Your task to perform on an android device: change notifications settings Image 0: 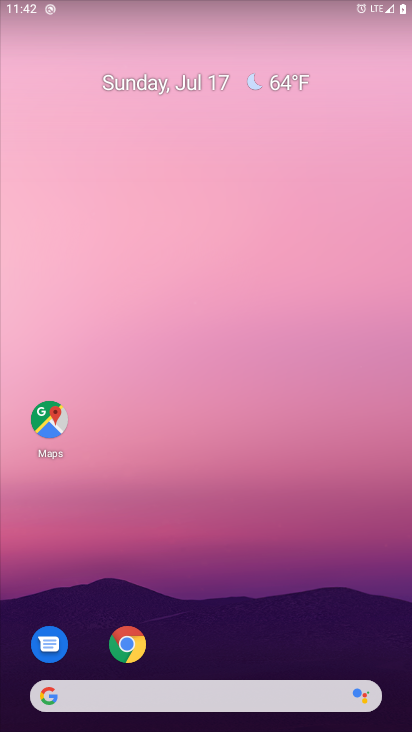
Step 0: press home button
Your task to perform on an android device: change notifications settings Image 1: 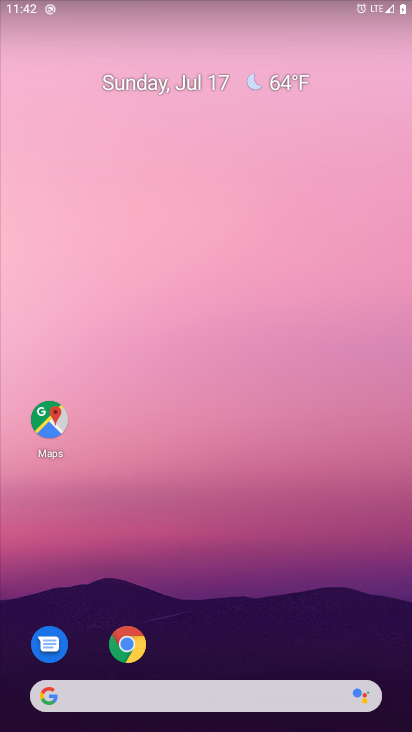
Step 1: drag from (198, 60) to (201, 24)
Your task to perform on an android device: change notifications settings Image 2: 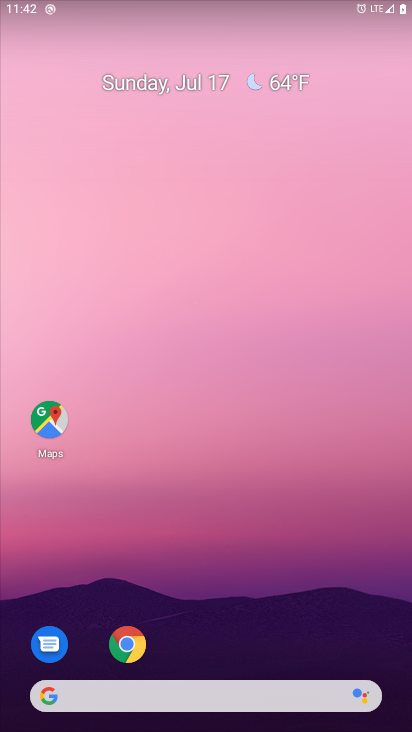
Step 2: drag from (243, 616) to (252, 3)
Your task to perform on an android device: change notifications settings Image 3: 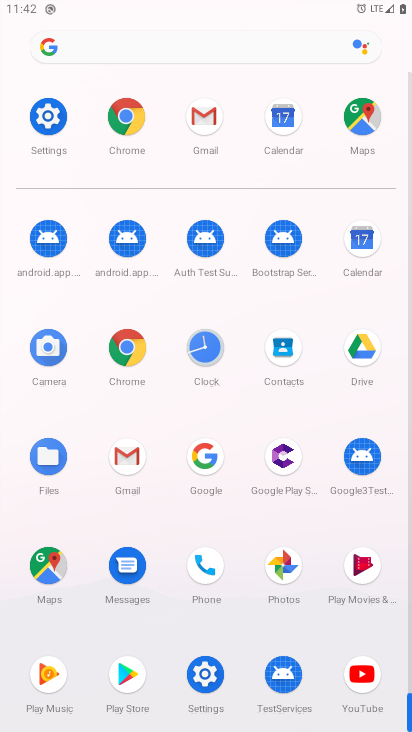
Step 3: click (40, 127)
Your task to perform on an android device: change notifications settings Image 4: 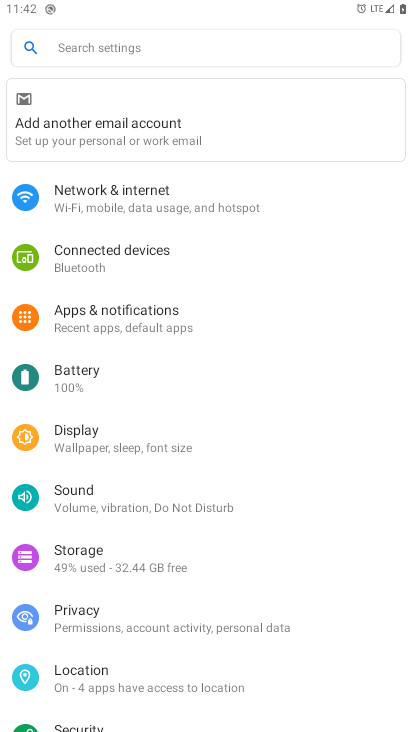
Step 4: click (104, 311)
Your task to perform on an android device: change notifications settings Image 5: 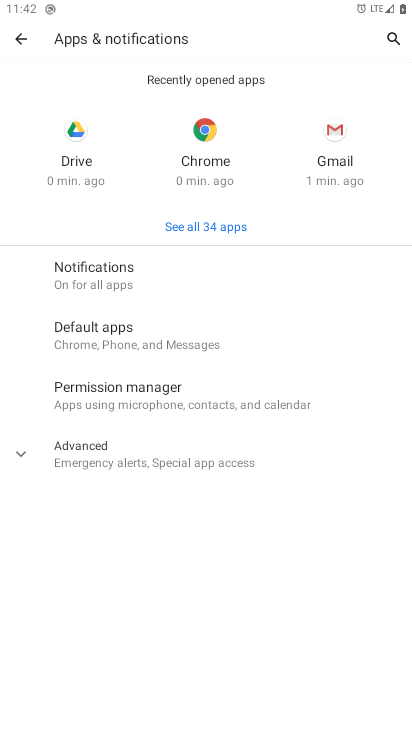
Step 5: click (96, 283)
Your task to perform on an android device: change notifications settings Image 6: 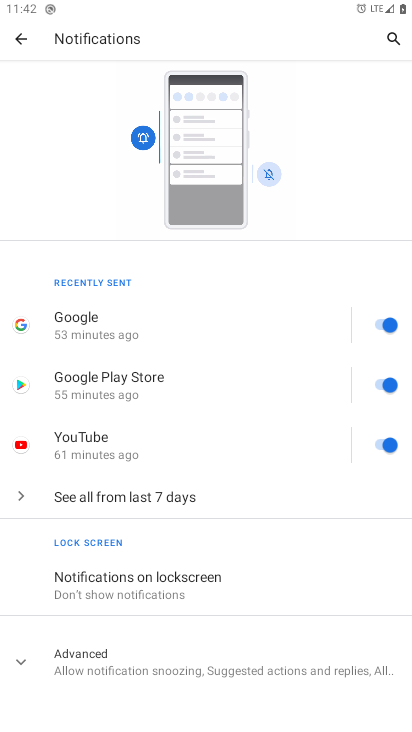
Step 6: drag from (279, 535) to (297, 236)
Your task to perform on an android device: change notifications settings Image 7: 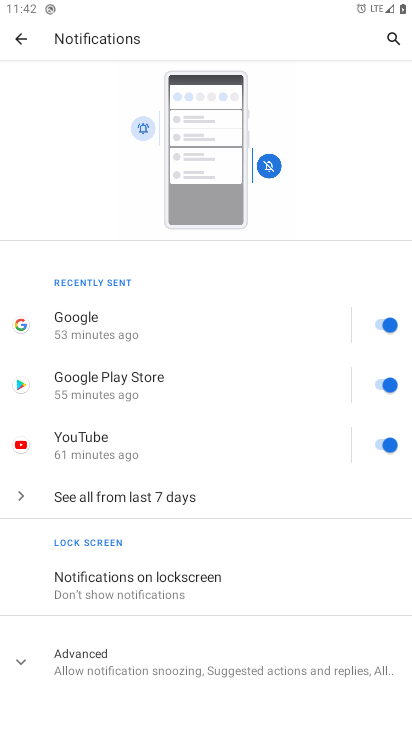
Step 7: click (139, 130)
Your task to perform on an android device: change notifications settings Image 8: 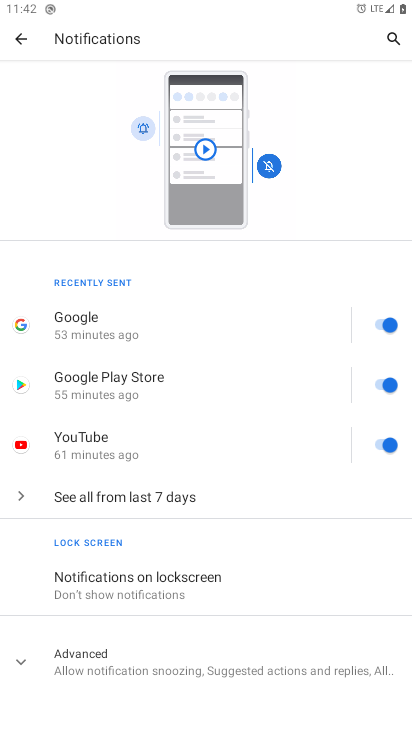
Step 8: click (140, 127)
Your task to perform on an android device: change notifications settings Image 9: 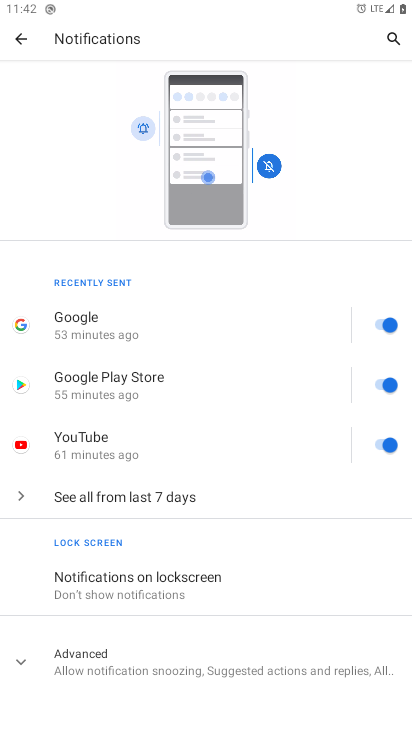
Step 9: click (262, 162)
Your task to perform on an android device: change notifications settings Image 10: 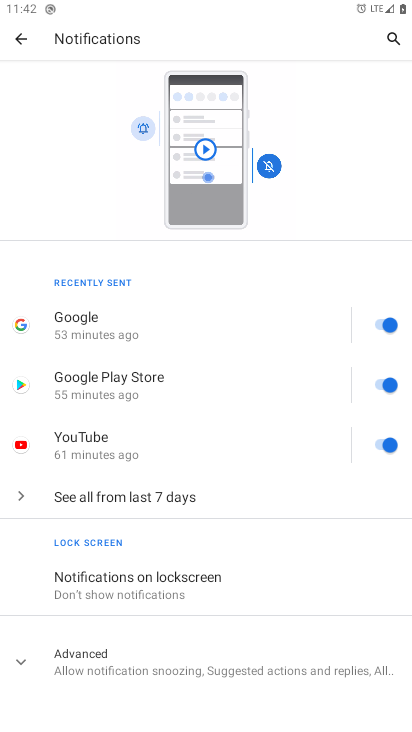
Step 10: drag from (253, 538) to (283, 143)
Your task to perform on an android device: change notifications settings Image 11: 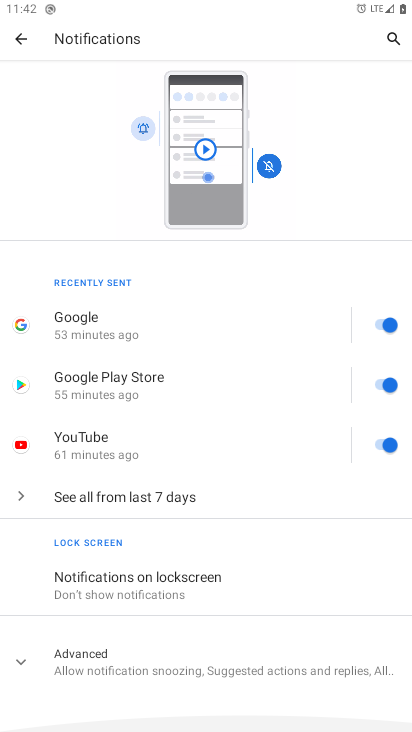
Step 11: drag from (193, 271) to (178, 717)
Your task to perform on an android device: change notifications settings Image 12: 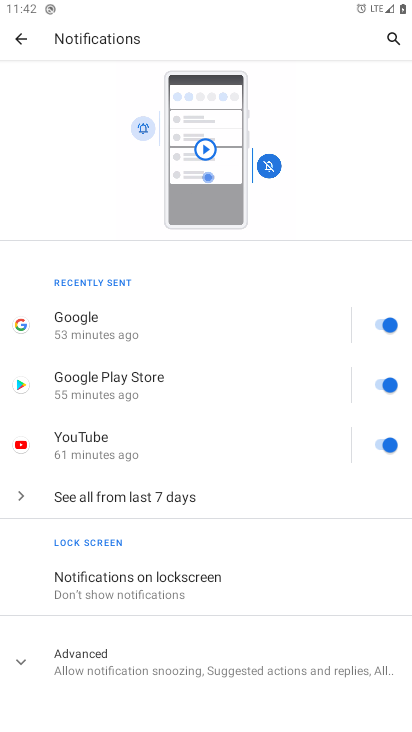
Step 12: click (260, 166)
Your task to perform on an android device: change notifications settings Image 13: 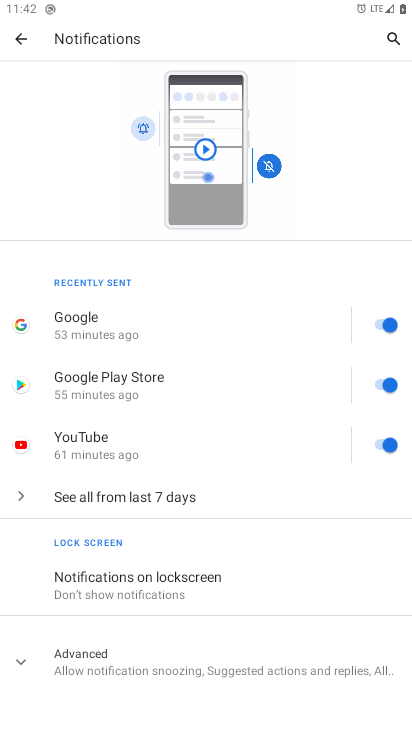
Step 13: click (260, 166)
Your task to perform on an android device: change notifications settings Image 14: 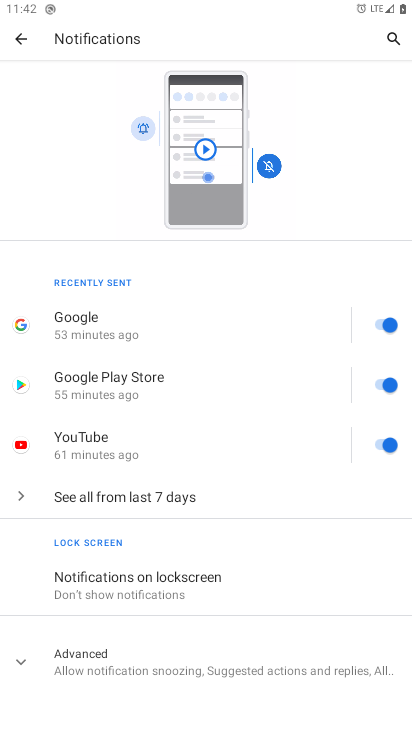
Step 14: task complete